Your task to perform on an android device: Open Wikipedia Image 0: 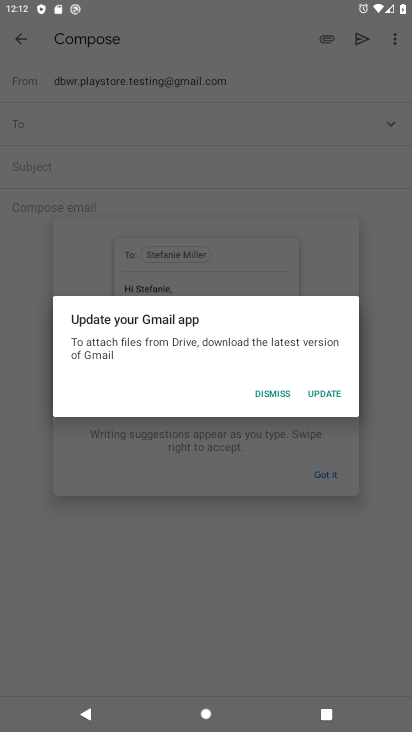
Step 0: press home button
Your task to perform on an android device: Open Wikipedia Image 1: 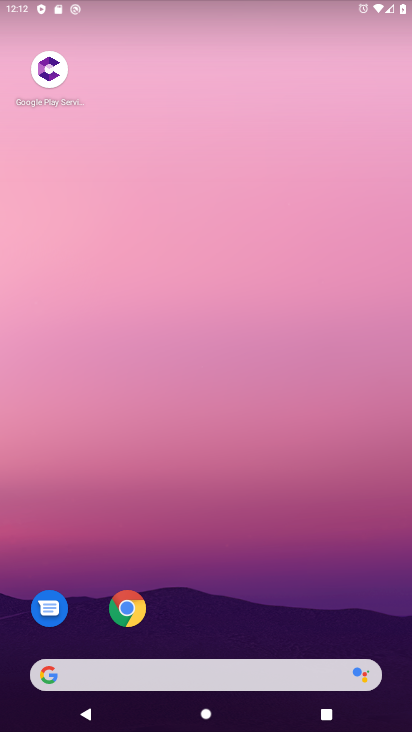
Step 1: drag from (254, 608) to (193, 196)
Your task to perform on an android device: Open Wikipedia Image 2: 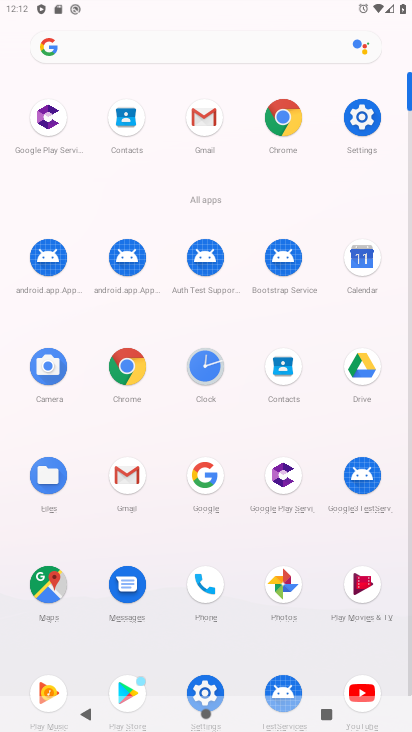
Step 2: click (274, 111)
Your task to perform on an android device: Open Wikipedia Image 3: 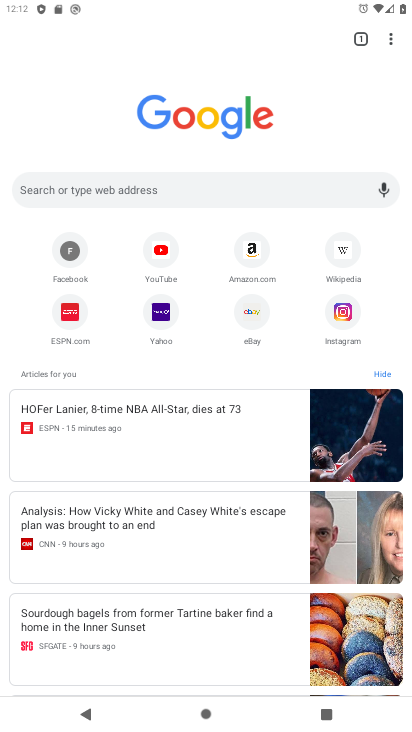
Step 3: click (209, 188)
Your task to perform on an android device: Open Wikipedia Image 4: 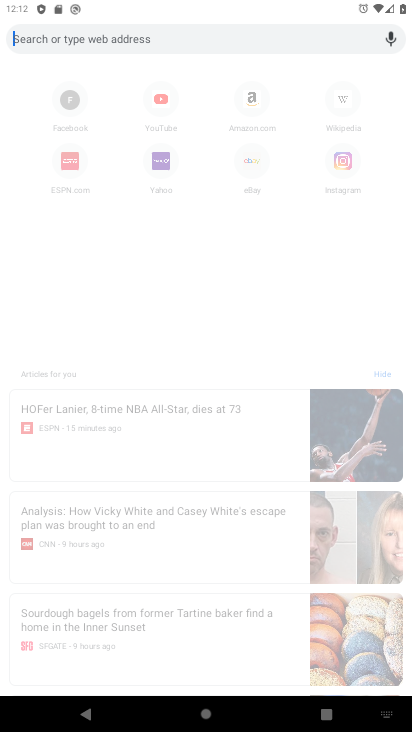
Step 4: type "wikipedia"
Your task to perform on an android device: Open Wikipedia Image 5: 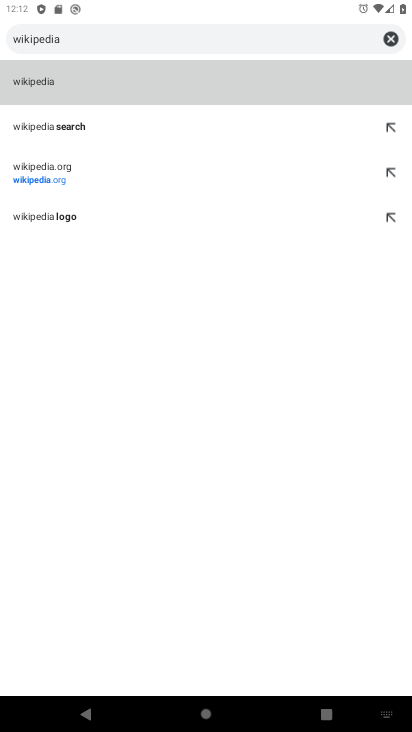
Step 5: click (207, 179)
Your task to perform on an android device: Open Wikipedia Image 6: 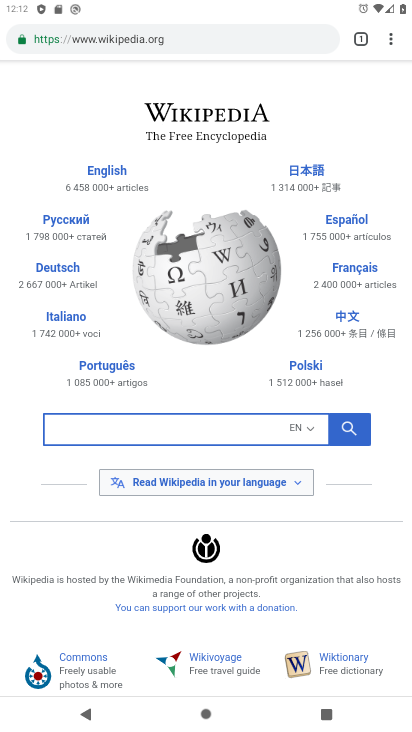
Step 6: task complete